Your task to perform on an android device: Go to eBay Image 0: 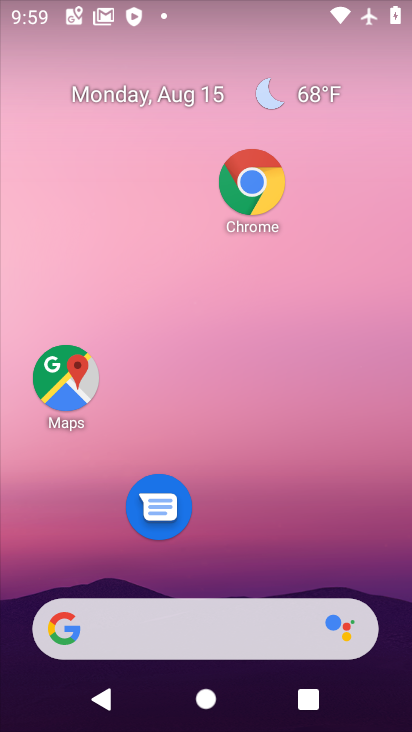
Step 0: drag from (242, 559) to (255, 57)
Your task to perform on an android device: Go to eBay Image 1: 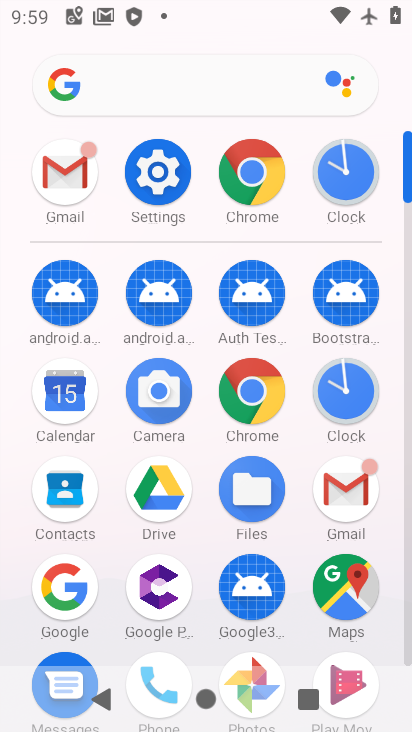
Step 1: click (224, 187)
Your task to perform on an android device: Go to eBay Image 2: 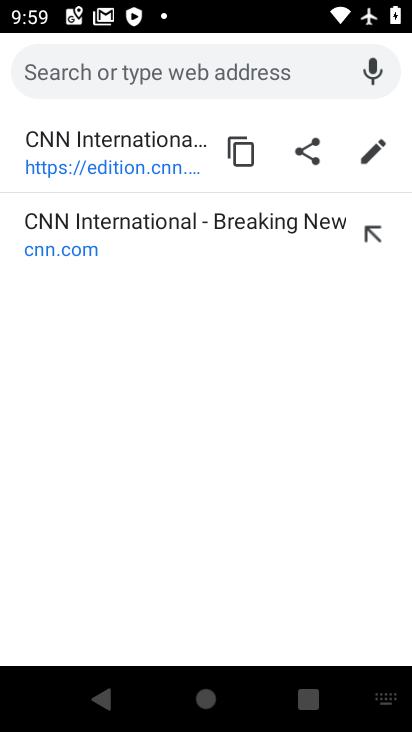
Step 2: type "ebay.com"
Your task to perform on an android device: Go to eBay Image 3: 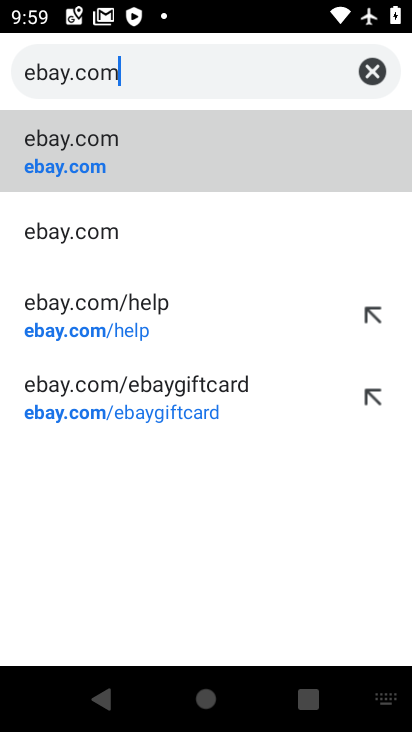
Step 3: click (94, 149)
Your task to perform on an android device: Go to eBay Image 4: 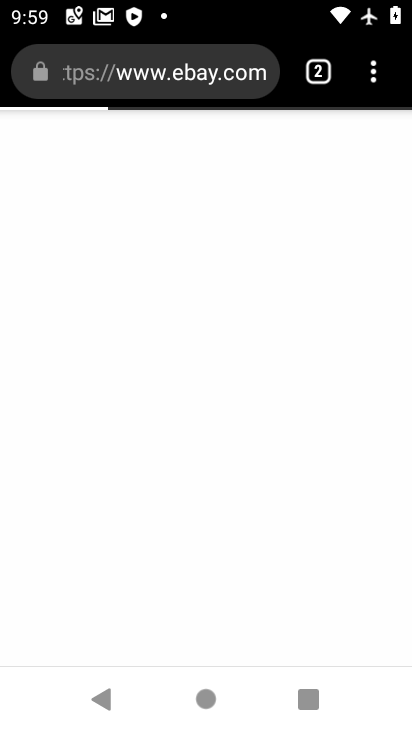
Step 4: task complete